Your task to perform on an android device: Open the phone app and click the voicemail tab. Image 0: 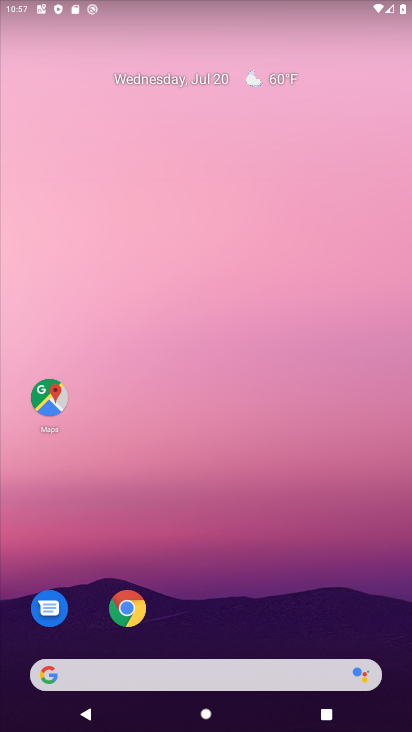
Step 0: drag from (267, 585) to (250, 222)
Your task to perform on an android device: Open the phone app and click the voicemail tab. Image 1: 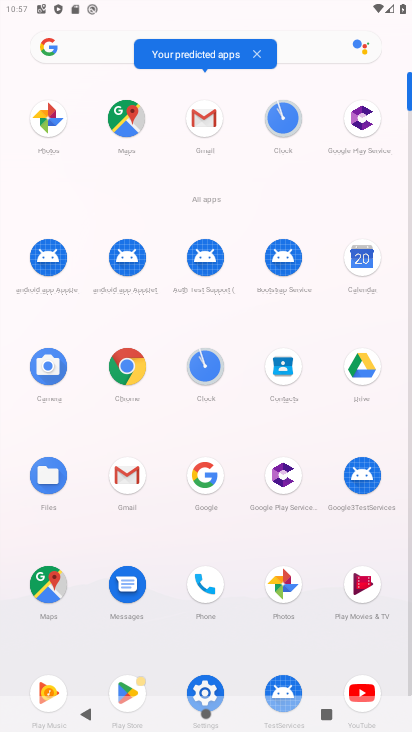
Step 1: click (208, 586)
Your task to perform on an android device: Open the phone app and click the voicemail tab. Image 2: 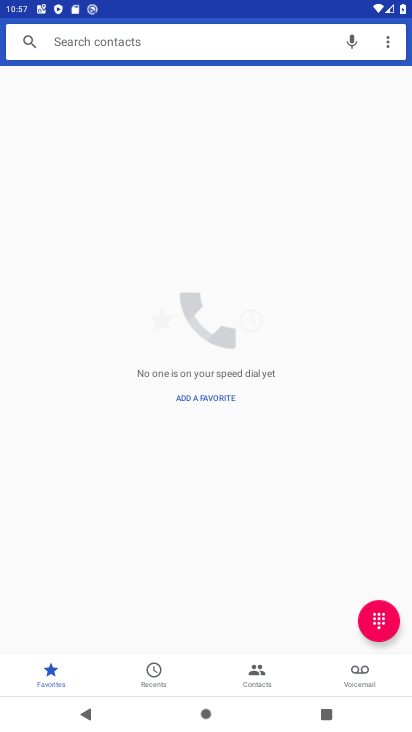
Step 2: click (365, 668)
Your task to perform on an android device: Open the phone app and click the voicemail tab. Image 3: 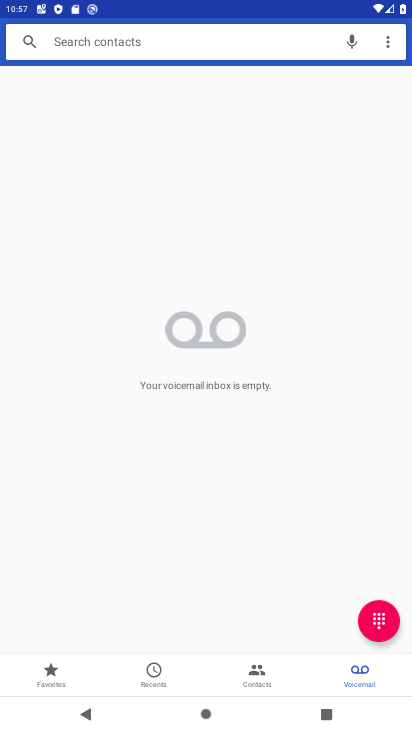
Step 3: task complete